Your task to perform on an android device: search for starred emails in the gmail app Image 0: 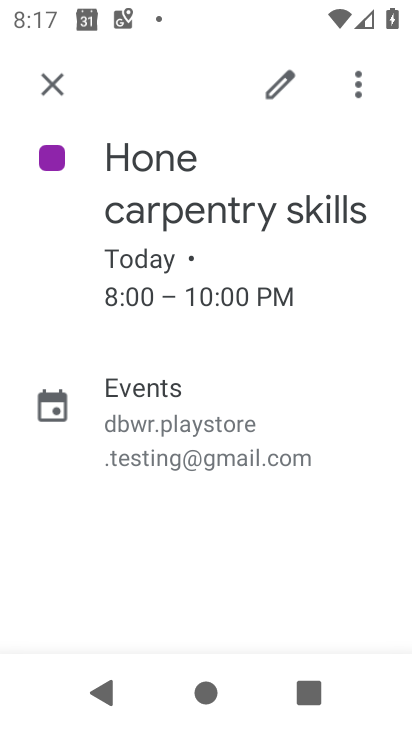
Step 0: press home button
Your task to perform on an android device: search for starred emails in the gmail app Image 1: 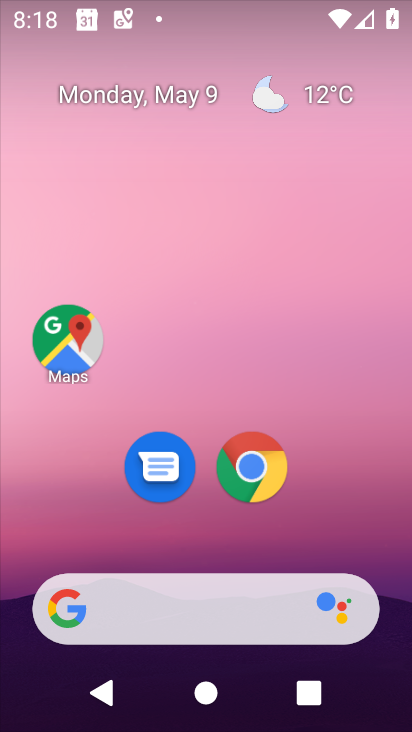
Step 1: drag from (387, 573) to (336, 7)
Your task to perform on an android device: search for starred emails in the gmail app Image 2: 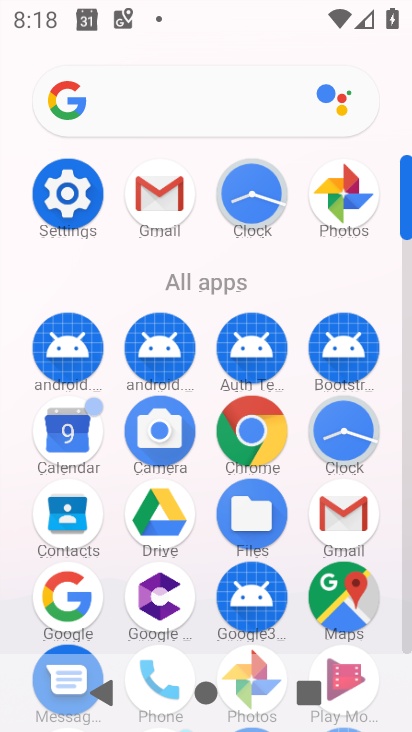
Step 2: click (152, 196)
Your task to perform on an android device: search for starred emails in the gmail app Image 3: 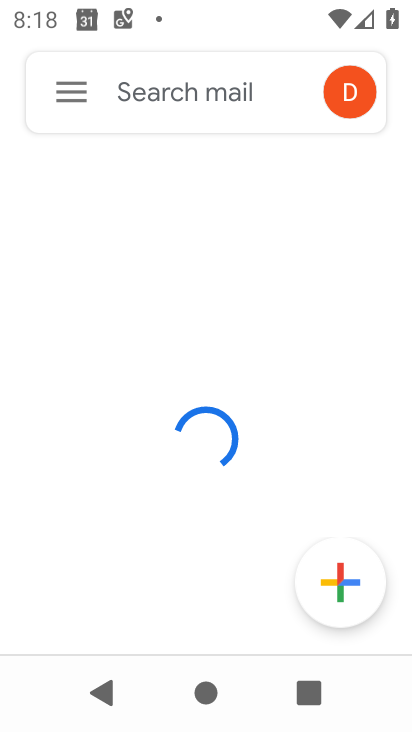
Step 3: click (70, 102)
Your task to perform on an android device: search for starred emails in the gmail app Image 4: 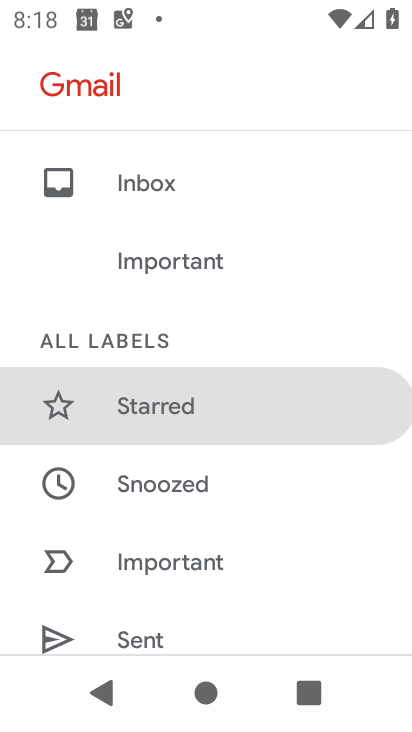
Step 4: click (135, 405)
Your task to perform on an android device: search for starred emails in the gmail app Image 5: 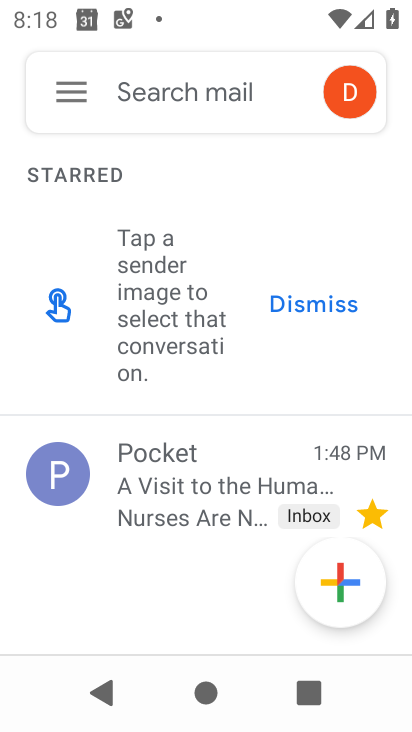
Step 5: task complete